Your task to perform on an android device: clear all cookies in the chrome app Image 0: 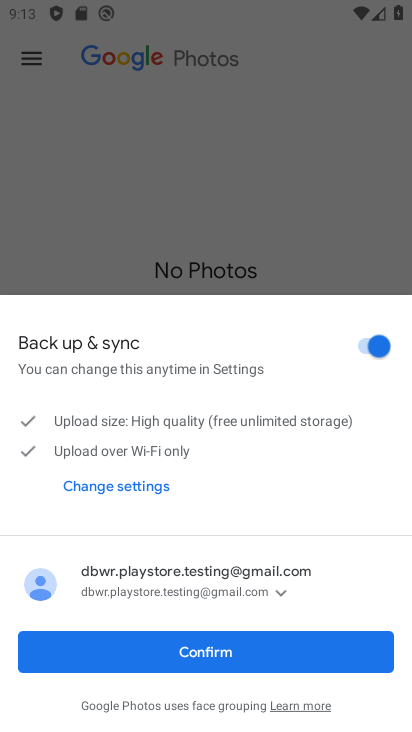
Step 0: press home button
Your task to perform on an android device: clear all cookies in the chrome app Image 1: 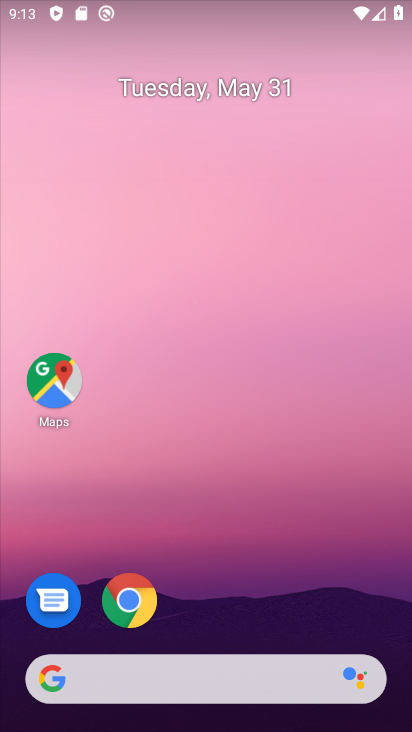
Step 1: click (141, 597)
Your task to perform on an android device: clear all cookies in the chrome app Image 2: 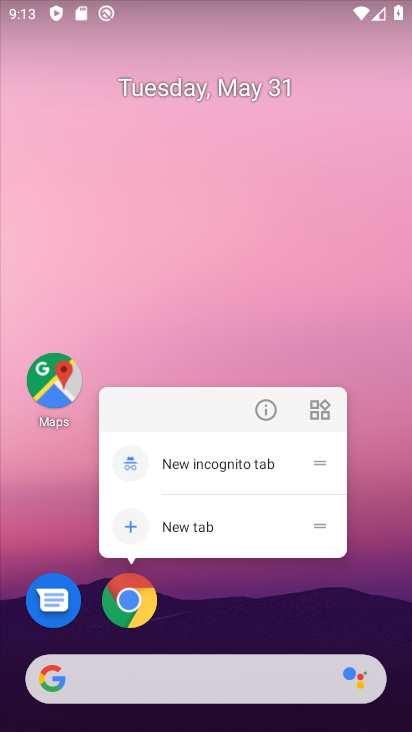
Step 2: click (133, 601)
Your task to perform on an android device: clear all cookies in the chrome app Image 3: 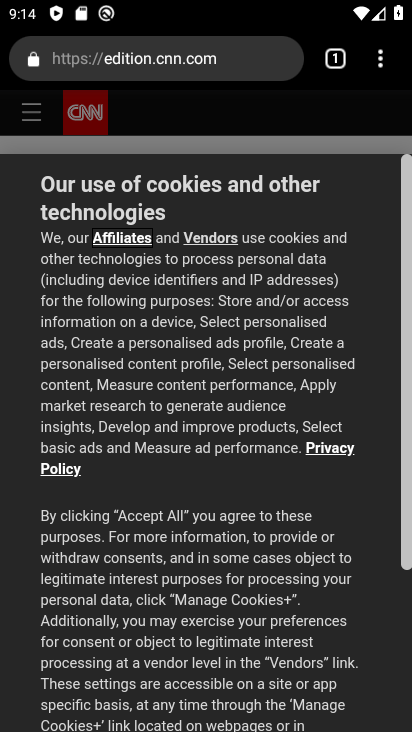
Step 3: drag from (379, 53) to (197, 300)
Your task to perform on an android device: clear all cookies in the chrome app Image 4: 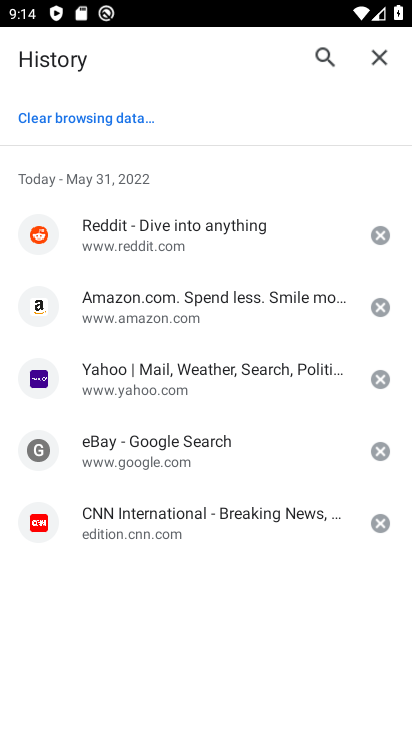
Step 4: click (69, 122)
Your task to perform on an android device: clear all cookies in the chrome app Image 5: 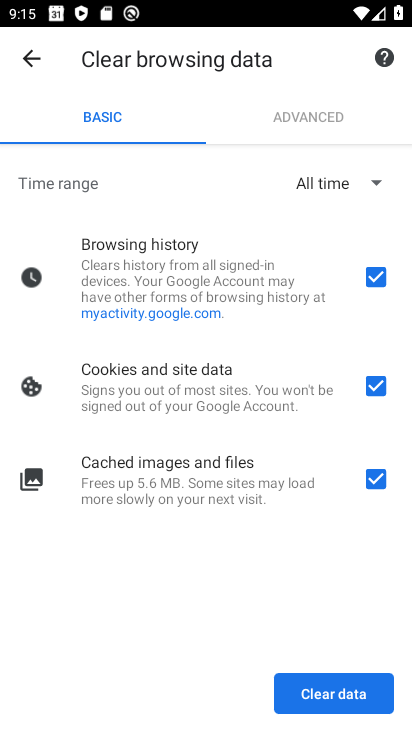
Step 5: click (379, 484)
Your task to perform on an android device: clear all cookies in the chrome app Image 6: 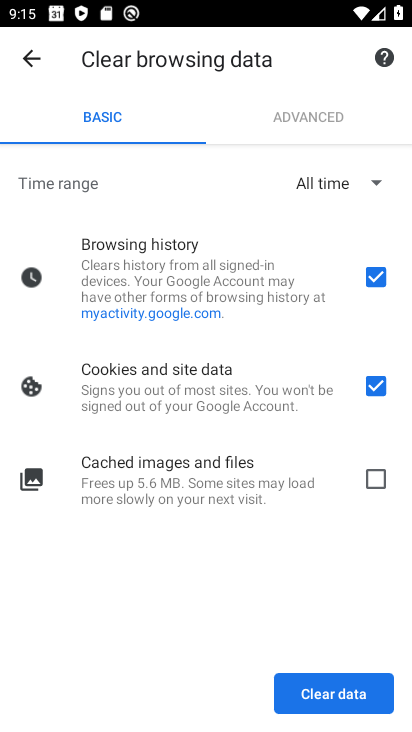
Step 6: click (379, 281)
Your task to perform on an android device: clear all cookies in the chrome app Image 7: 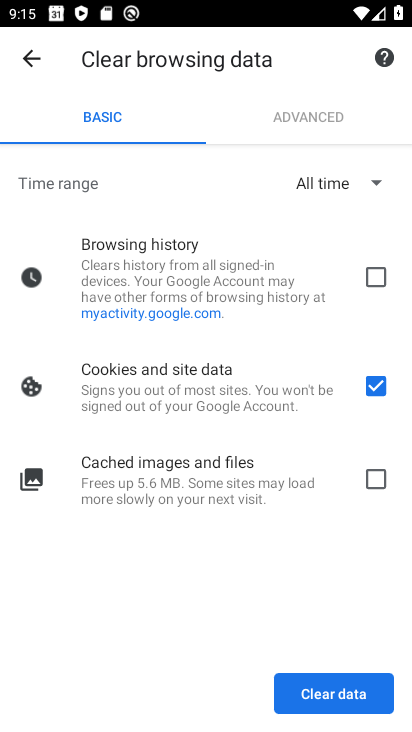
Step 7: click (337, 688)
Your task to perform on an android device: clear all cookies in the chrome app Image 8: 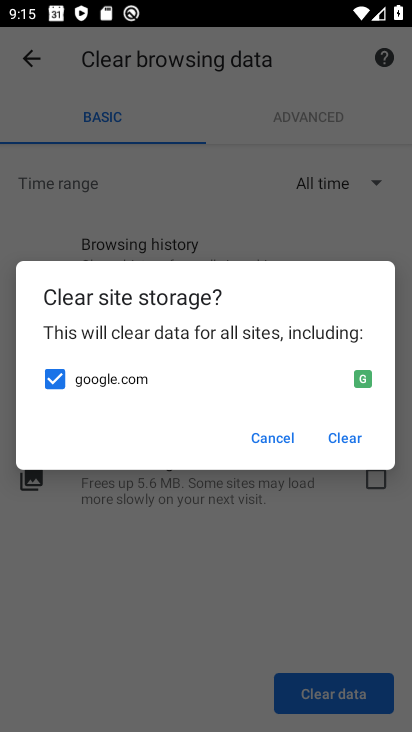
Step 8: click (358, 431)
Your task to perform on an android device: clear all cookies in the chrome app Image 9: 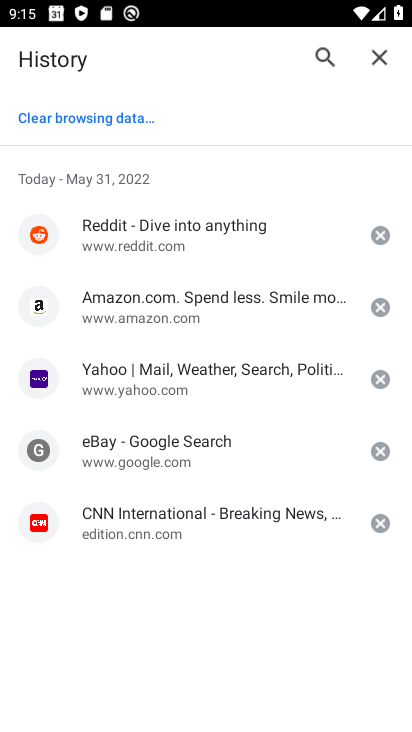
Step 9: task complete